Your task to perform on an android device: toggle translation in the chrome app Image 0: 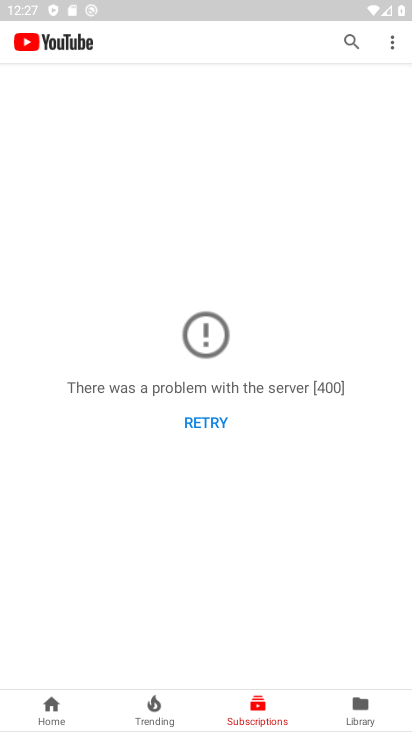
Step 0: press home button
Your task to perform on an android device: toggle translation in the chrome app Image 1: 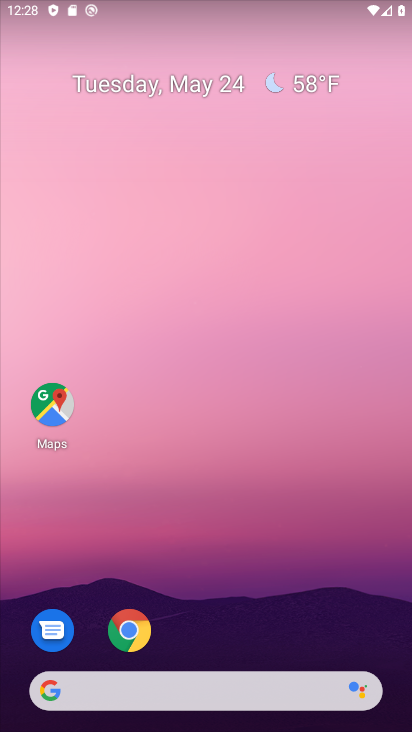
Step 1: click (130, 629)
Your task to perform on an android device: toggle translation in the chrome app Image 2: 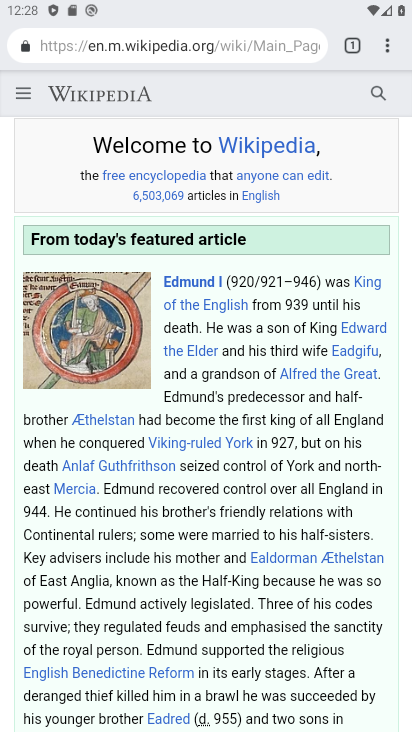
Step 2: click (388, 46)
Your task to perform on an android device: toggle translation in the chrome app Image 3: 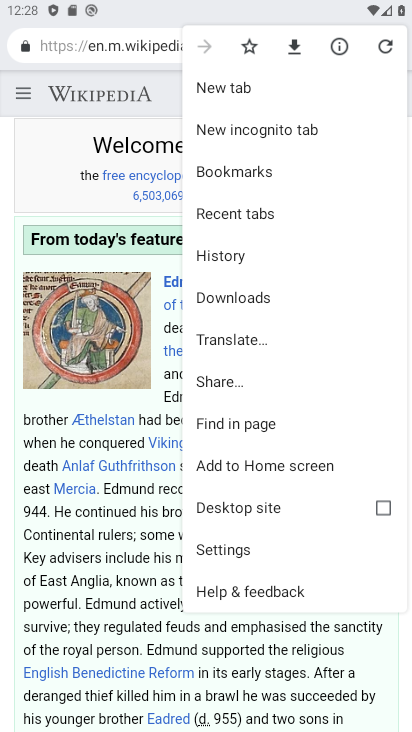
Step 3: click (230, 546)
Your task to perform on an android device: toggle translation in the chrome app Image 4: 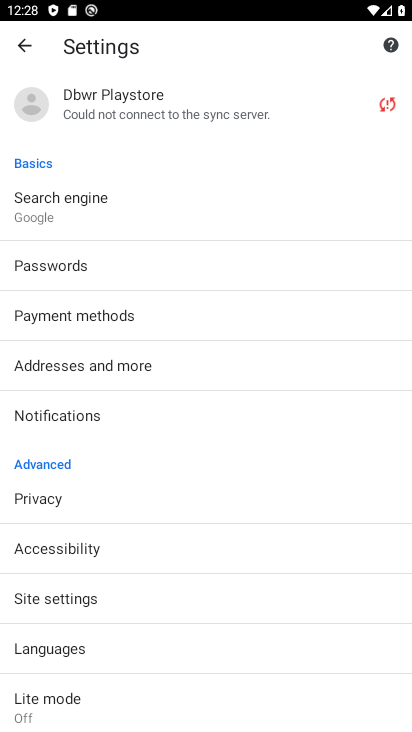
Step 4: click (59, 649)
Your task to perform on an android device: toggle translation in the chrome app Image 5: 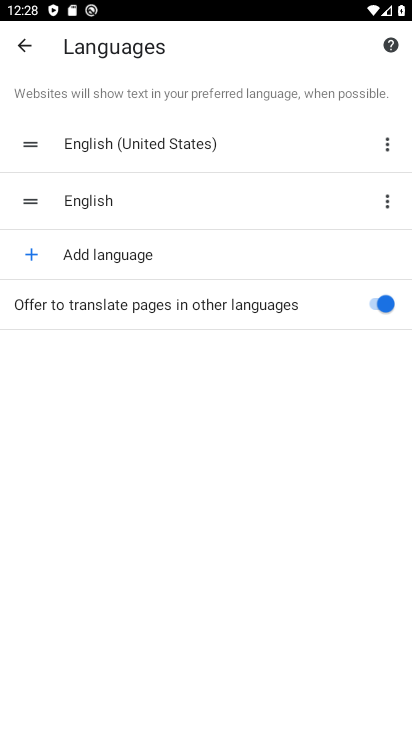
Step 5: click (395, 298)
Your task to perform on an android device: toggle translation in the chrome app Image 6: 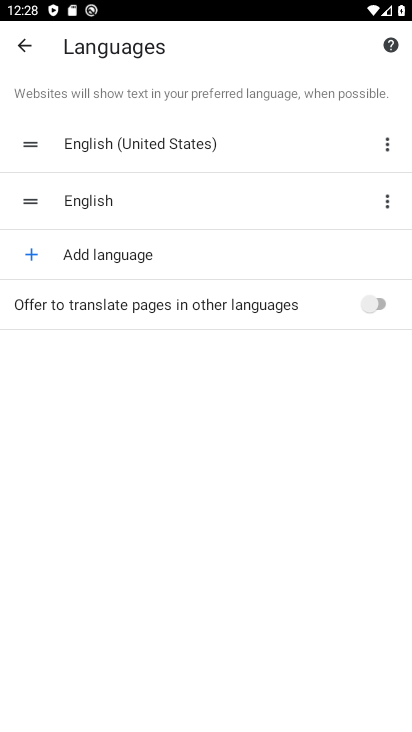
Step 6: task complete